Your task to perform on an android device: empty trash in google photos Image 0: 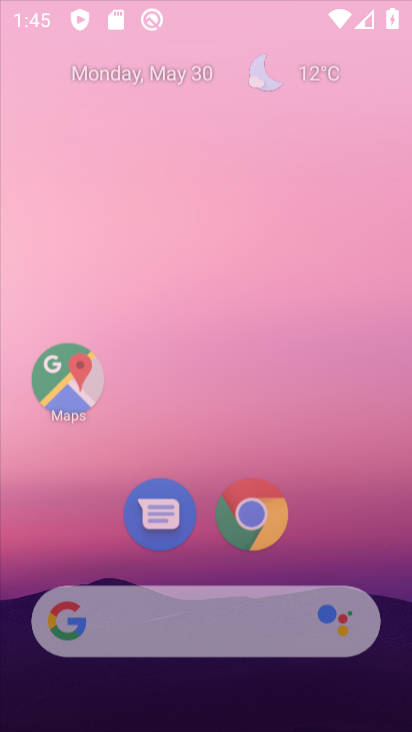
Step 0: drag from (313, 301) to (308, 426)
Your task to perform on an android device: empty trash in google photos Image 1: 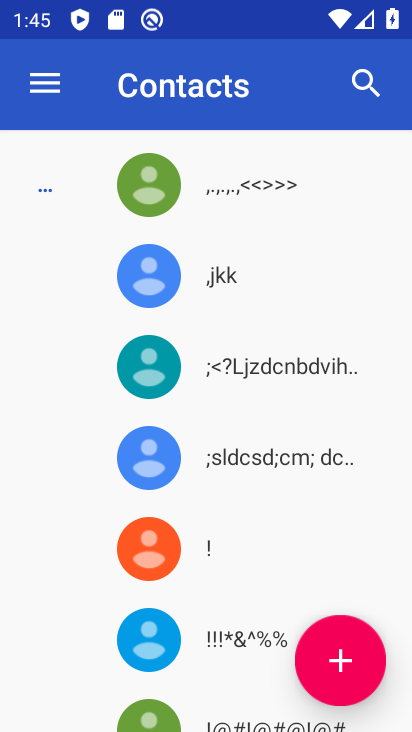
Step 1: press home button
Your task to perform on an android device: empty trash in google photos Image 2: 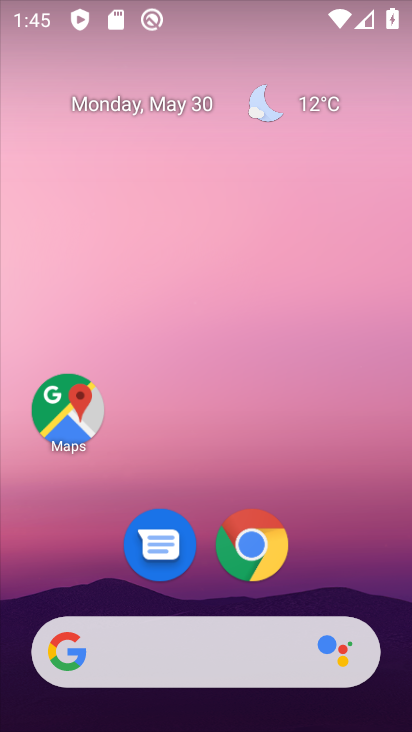
Step 2: drag from (206, 608) to (181, 104)
Your task to perform on an android device: empty trash in google photos Image 3: 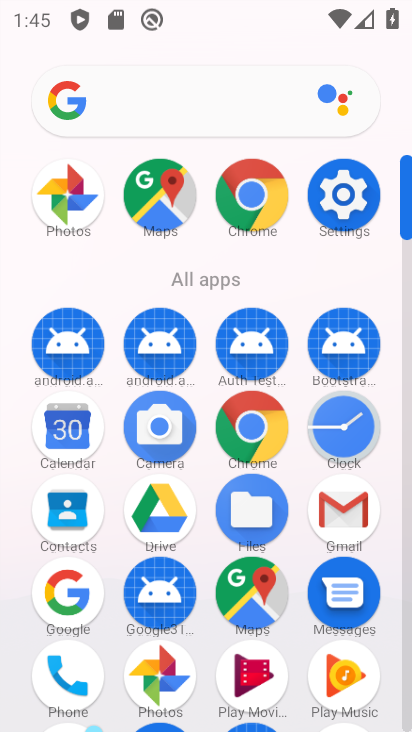
Step 3: click (47, 190)
Your task to perform on an android device: empty trash in google photos Image 4: 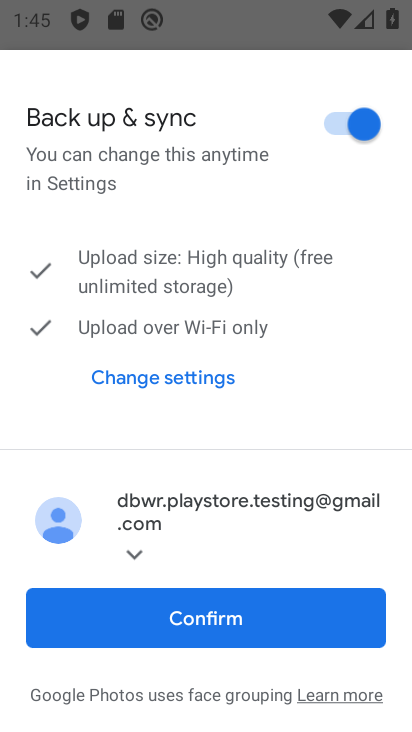
Step 4: click (199, 597)
Your task to perform on an android device: empty trash in google photos Image 5: 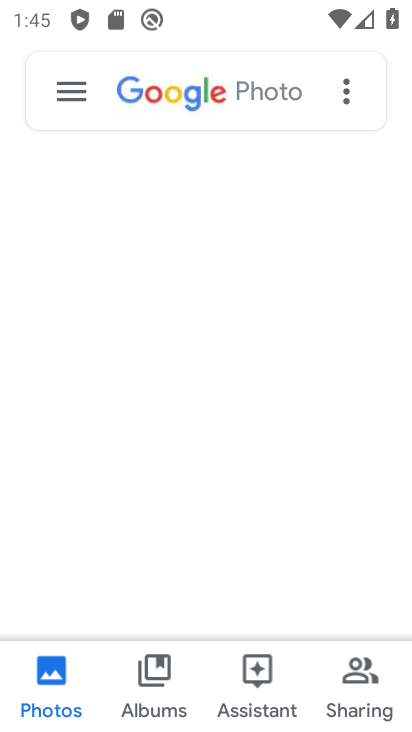
Step 5: click (48, 88)
Your task to perform on an android device: empty trash in google photos Image 6: 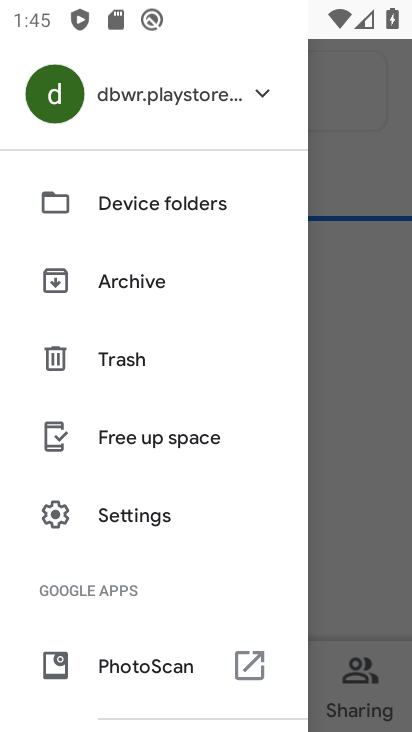
Step 6: click (117, 371)
Your task to perform on an android device: empty trash in google photos Image 7: 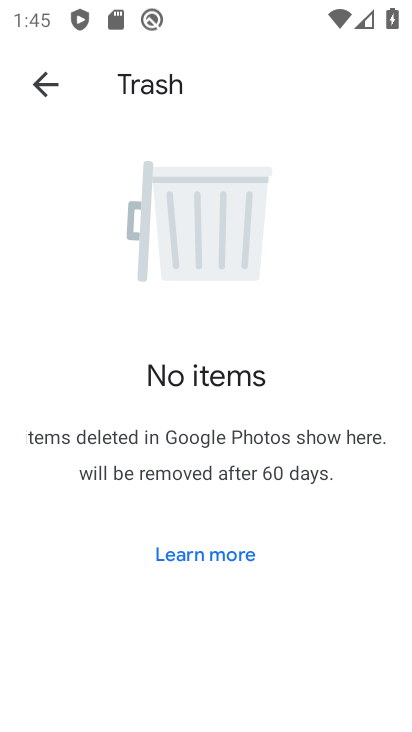
Step 7: task complete